Your task to perform on an android device: Open sound settings Image 0: 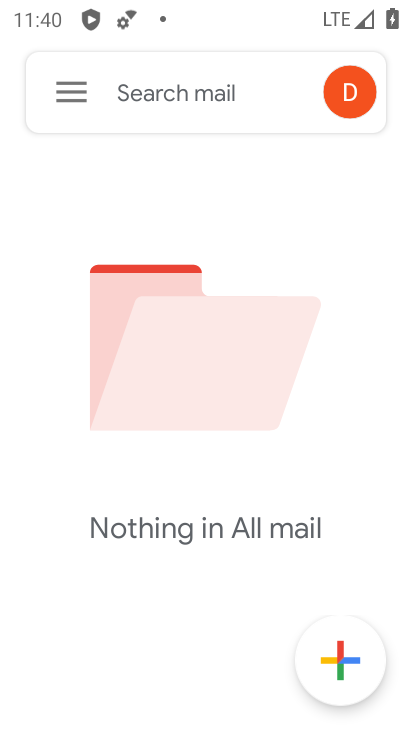
Step 0: press home button
Your task to perform on an android device: Open sound settings Image 1: 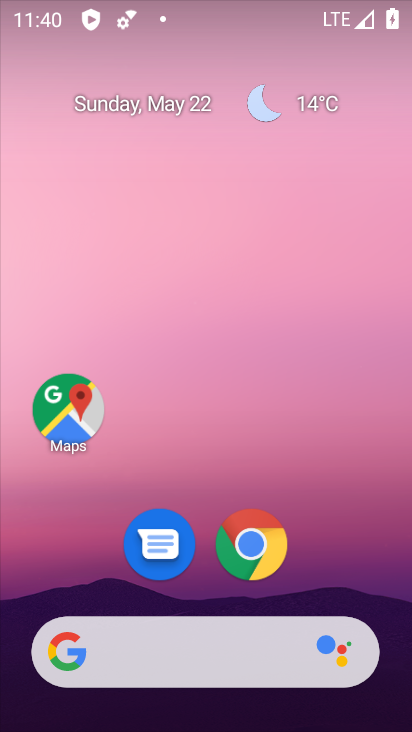
Step 1: drag from (306, 576) to (235, 116)
Your task to perform on an android device: Open sound settings Image 2: 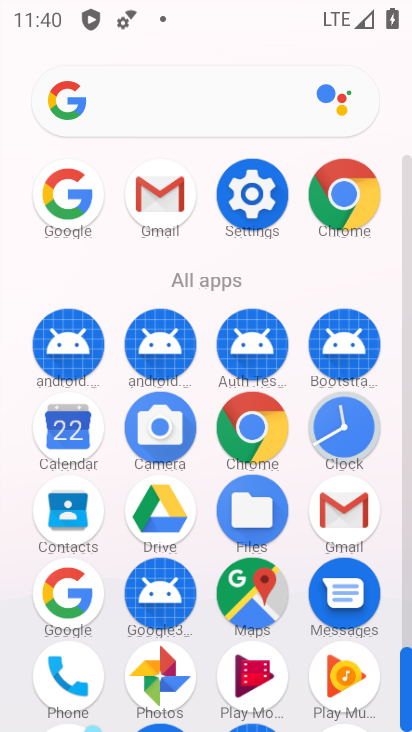
Step 2: click (249, 202)
Your task to perform on an android device: Open sound settings Image 3: 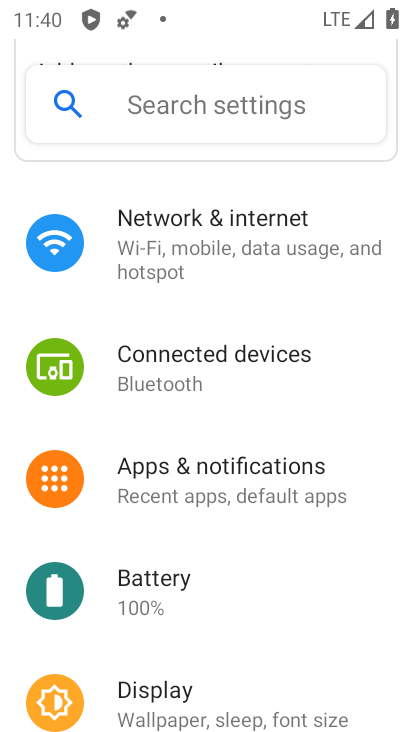
Step 3: drag from (199, 231) to (197, 154)
Your task to perform on an android device: Open sound settings Image 4: 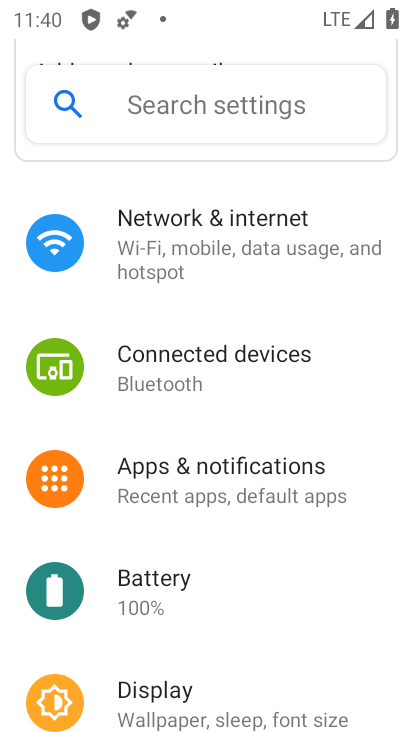
Step 4: drag from (249, 607) to (242, 235)
Your task to perform on an android device: Open sound settings Image 5: 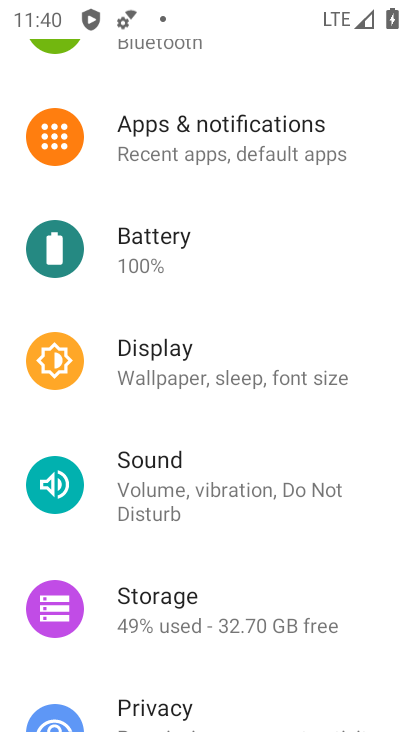
Step 5: click (119, 494)
Your task to perform on an android device: Open sound settings Image 6: 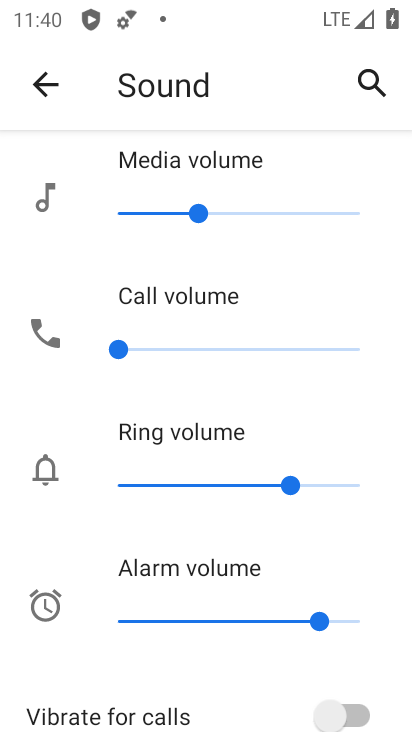
Step 6: task complete